Your task to perform on an android device: create a new album in the google photos Image 0: 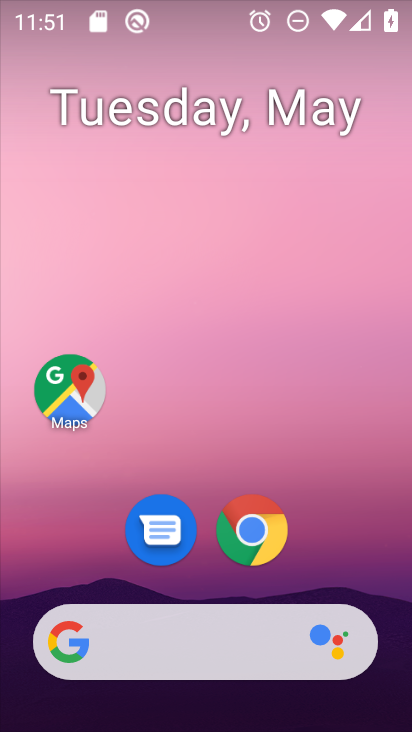
Step 0: drag from (357, 519) to (328, 127)
Your task to perform on an android device: create a new album in the google photos Image 1: 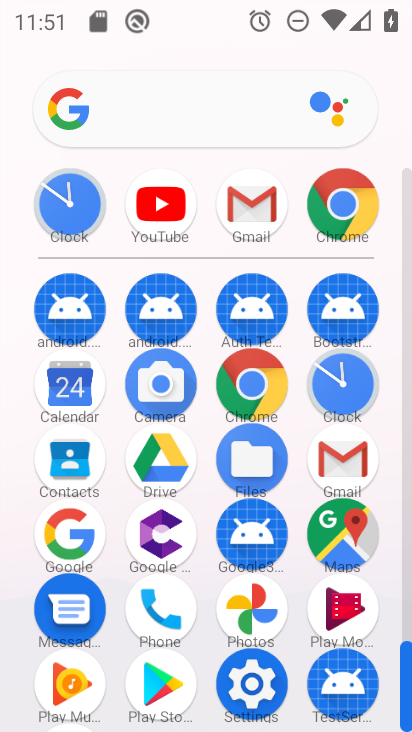
Step 1: click (257, 609)
Your task to perform on an android device: create a new album in the google photos Image 2: 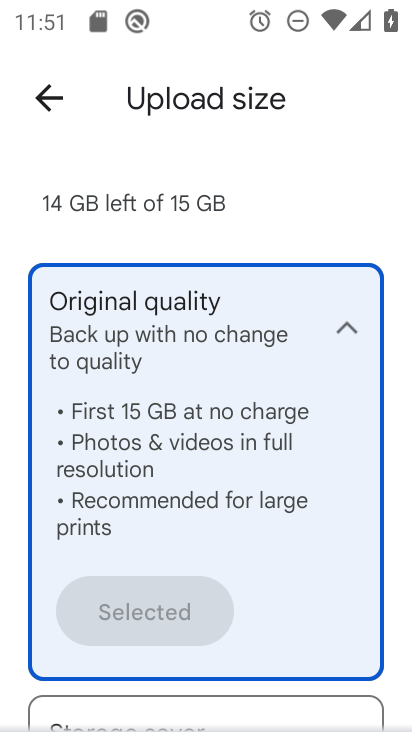
Step 2: click (42, 99)
Your task to perform on an android device: create a new album in the google photos Image 3: 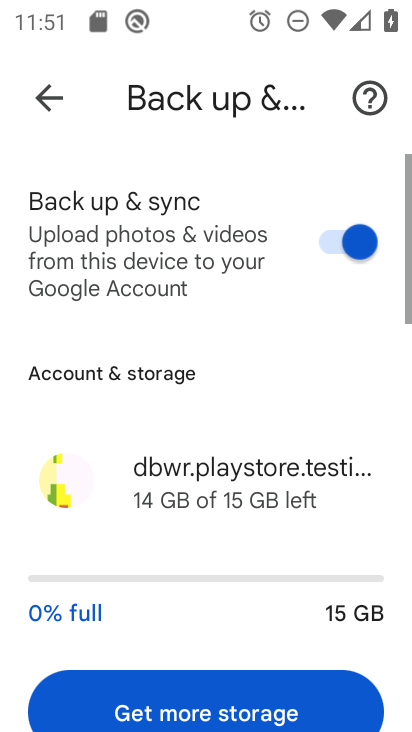
Step 3: click (46, 100)
Your task to perform on an android device: create a new album in the google photos Image 4: 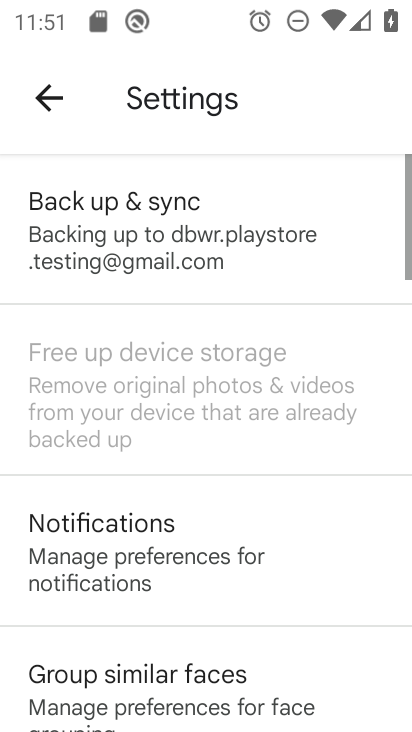
Step 4: click (46, 100)
Your task to perform on an android device: create a new album in the google photos Image 5: 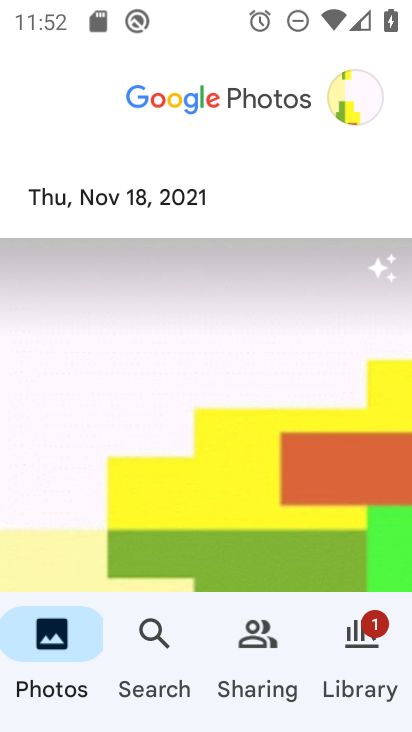
Step 5: click (359, 644)
Your task to perform on an android device: create a new album in the google photos Image 6: 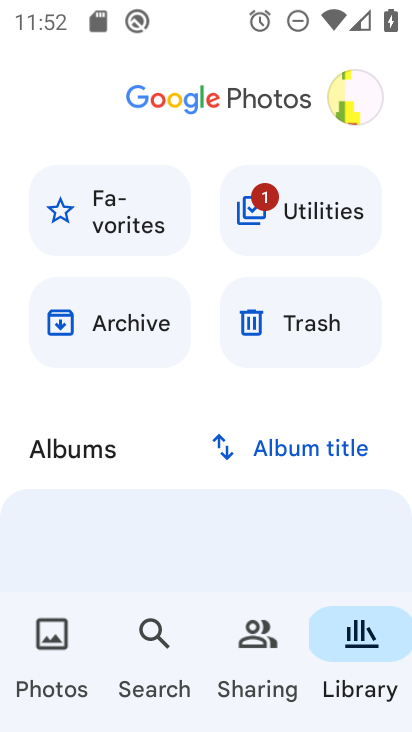
Step 6: drag from (138, 520) to (227, 207)
Your task to perform on an android device: create a new album in the google photos Image 7: 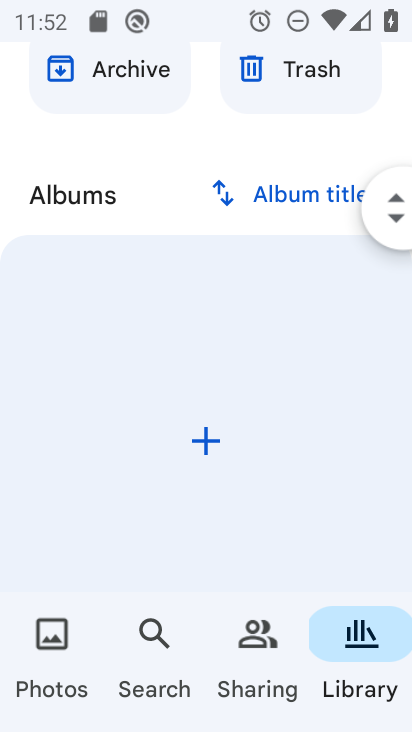
Step 7: click (205, 418)
Your task to perform on an android device: create a new album in the google photos Image 8: 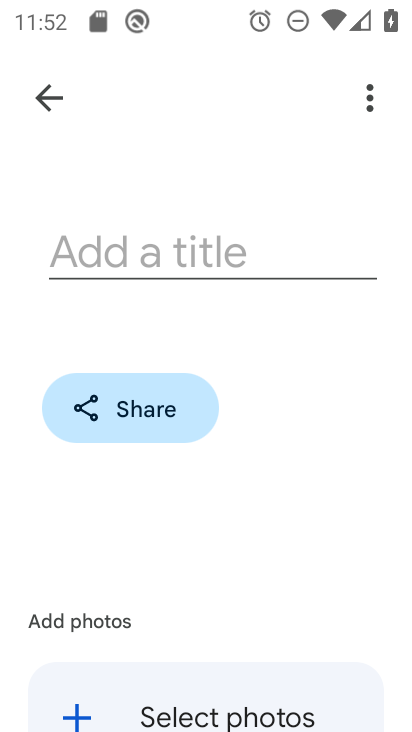
Step 8: click (250, 261)
Your task to perform on an android device: create a new album in the google photos Image 9: 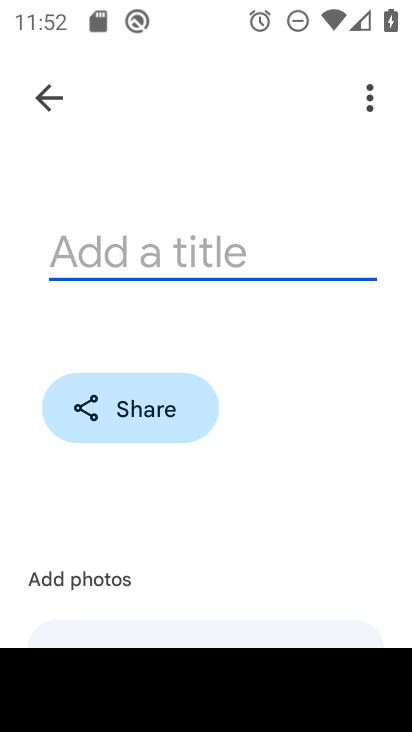
Step 9: type "surgery"
Your task to perform on an android device: create a new album in the google photos Image 10: 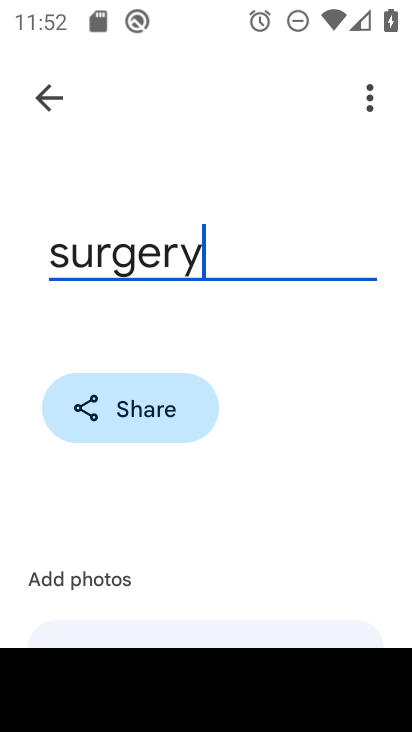
Step 10: drag from (217, 537) to (249, 313)
Your task to perform on an android device: create a new album in the google photos Image 11: 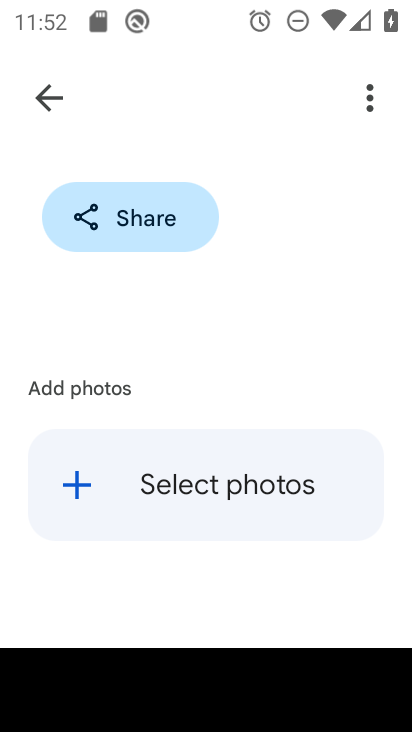
Step 11: click (148, 471)
Your task to perform on an android device: create a new album in the google photos Image 12: 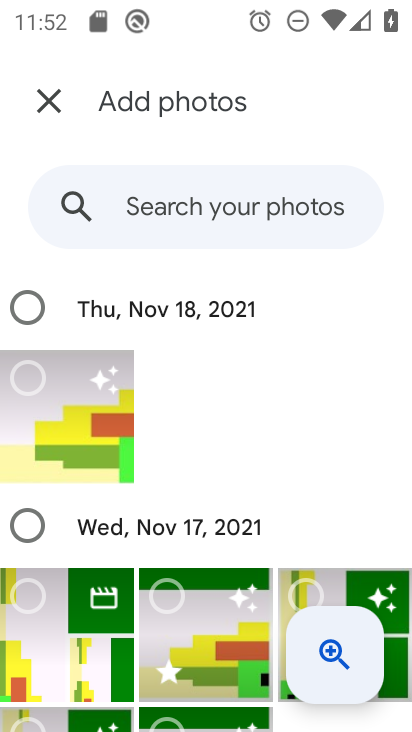
Step 12: click (49, 397)
Your task to perform on an android device: create a new album in the google photos Image 13: 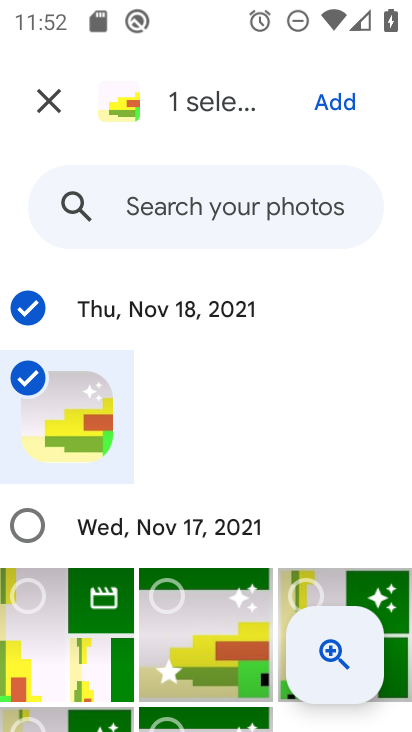
Step 13: click (360, 90)
Your task to perform on an android device: create a new album in the google photos Image 14: 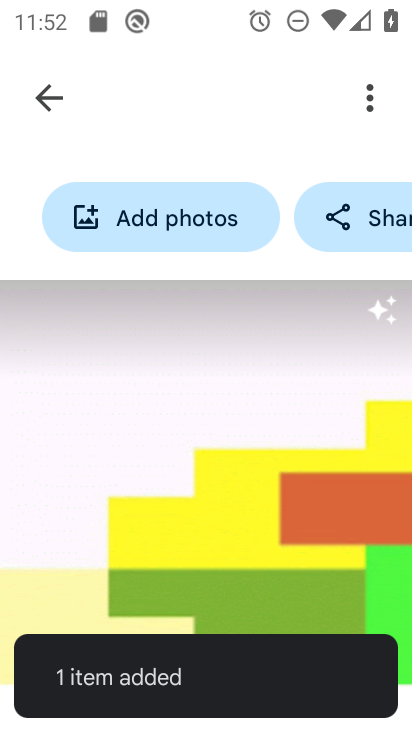
Step 14: task complete